Your task to perform on an android device: turn on the 24-hour format for clock Image 0: 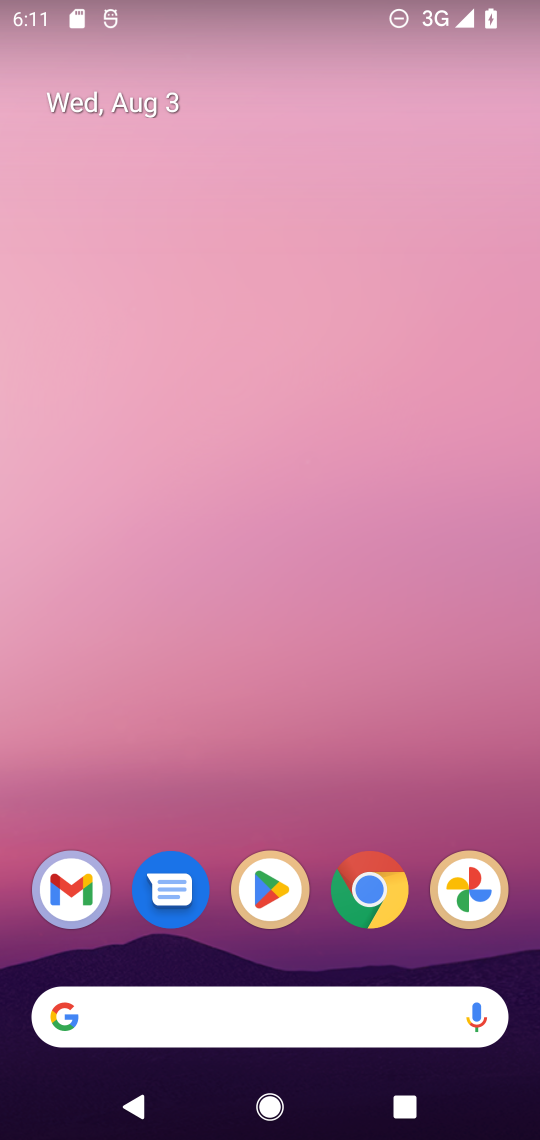
Step 0: drag from (327, 755) to (421, 4)
Your task to perform on an android device: turn on the 24-hour format for clock Image 1: 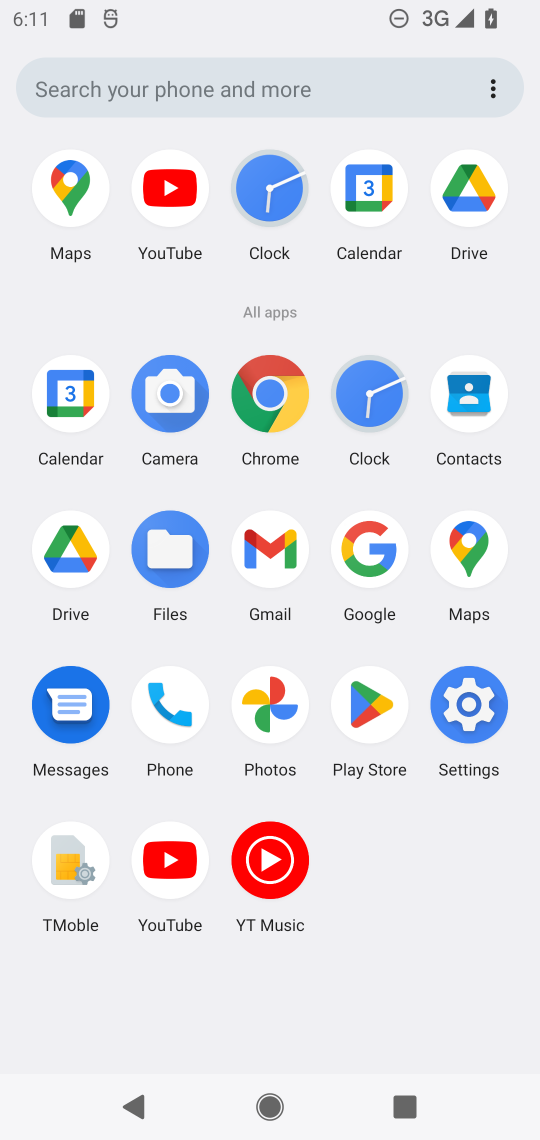
Step 1: click (281, 196)
Your task to perform on an android device: turn on the 24-hour format for clock Image 2: 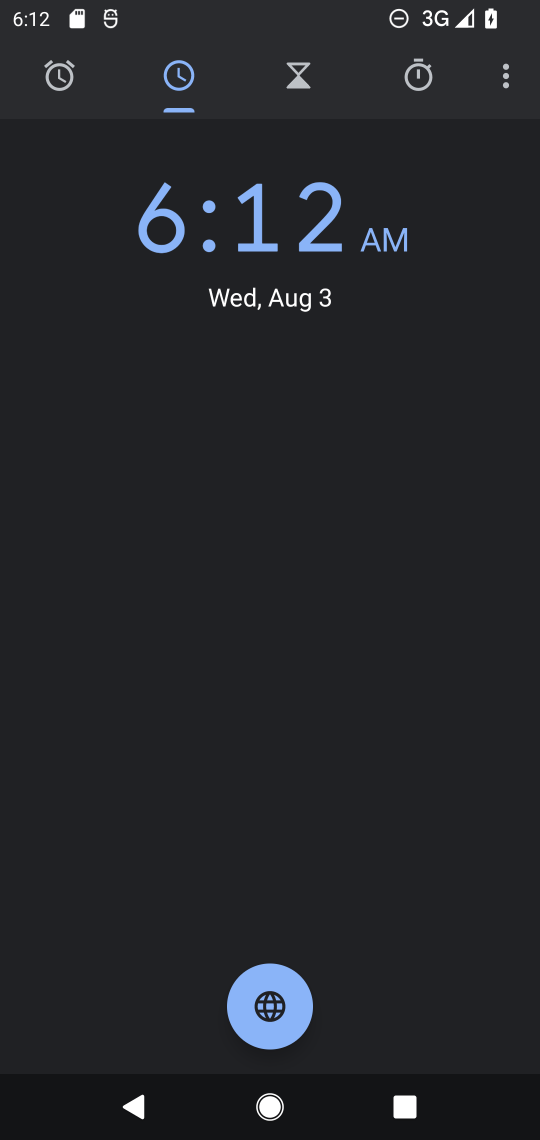
Step 2: click (505, 89)
Your task to perform on an android device: turn on the 24-hour format for clock Image 3: 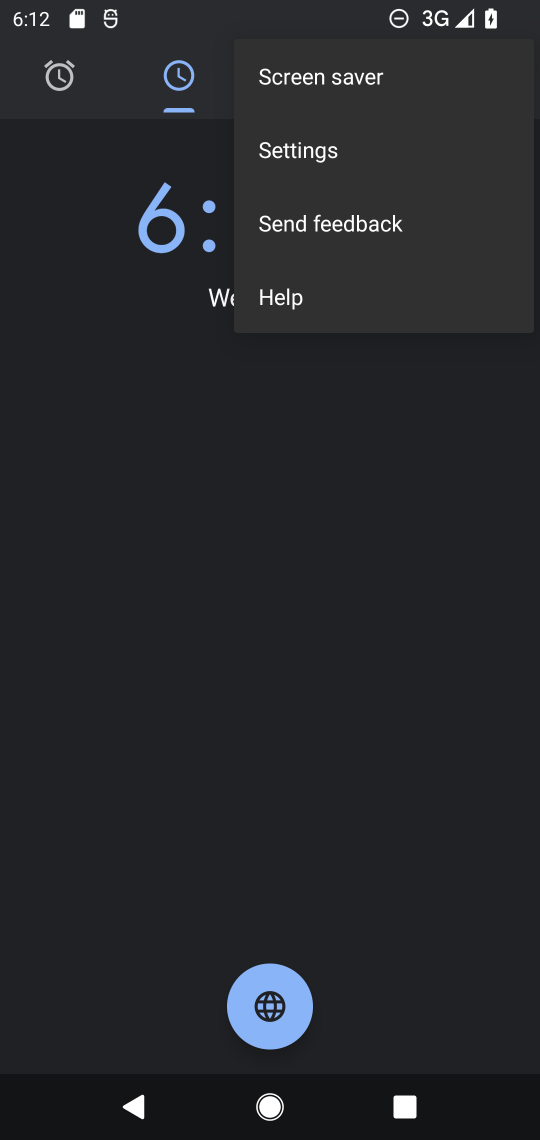
Step 3: click (364, 154)
Your task to perform on an android device: turn on the 24-hour format for clock Image 4: 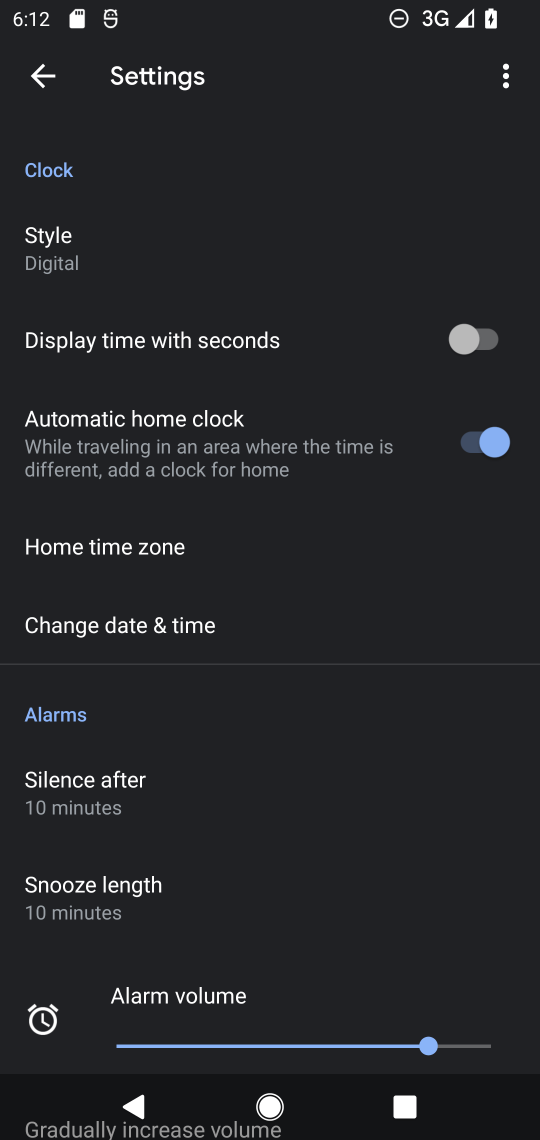
Step 4: click (243, 635)
Your task to perform on an android device: turn on the 24-hour format for clock Image 5: 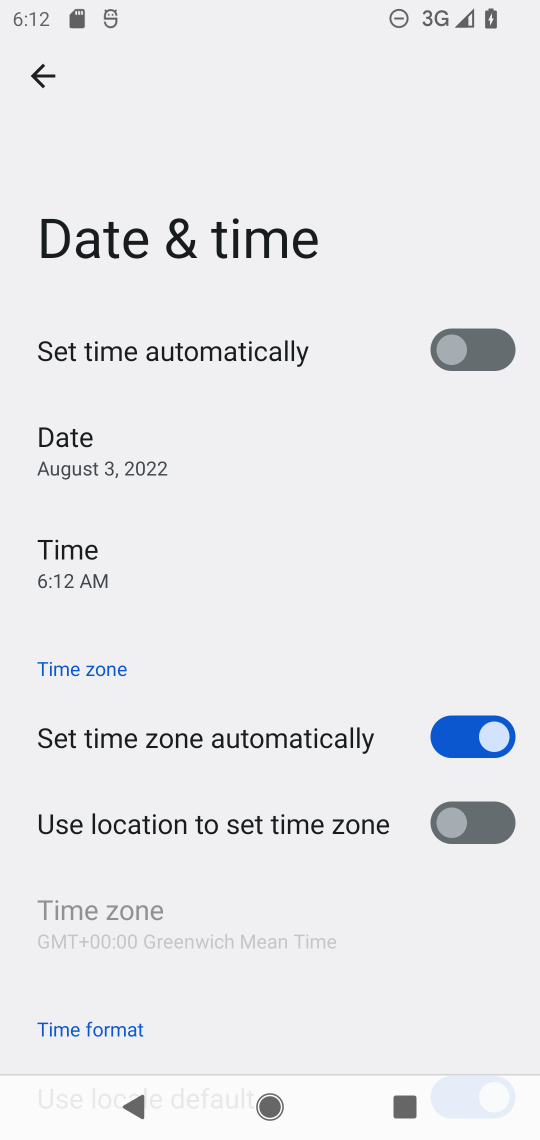
Step 5: drag from (270, 788) to (312, 263)
Your task to perform on an android device: turn on the 24-hour format for clock Image 6: 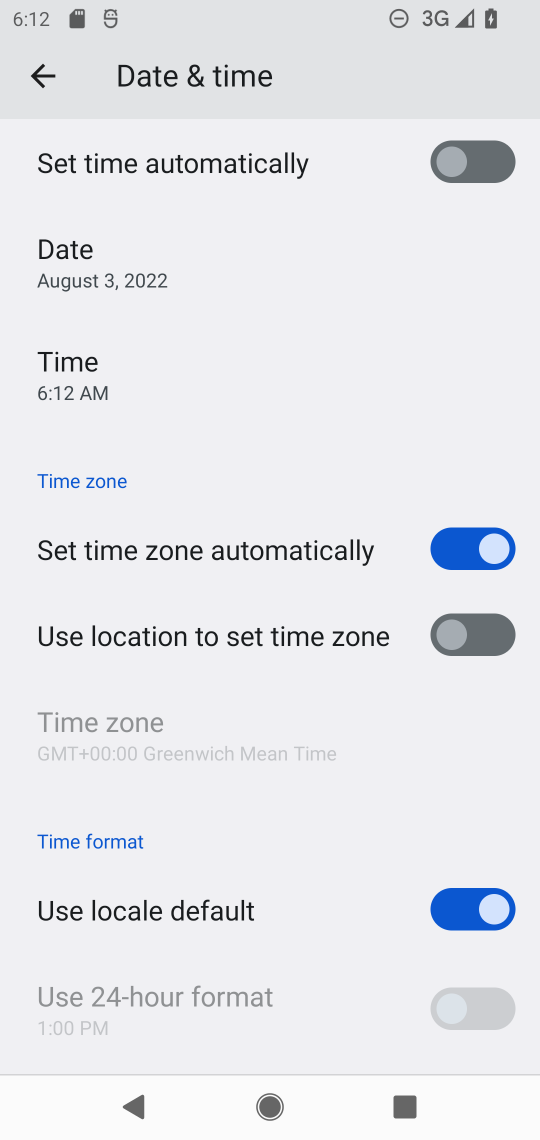
Step 6: click (456, 913)
Your task to perform on an android device: turn on the 24-hour format for clock Image 7: 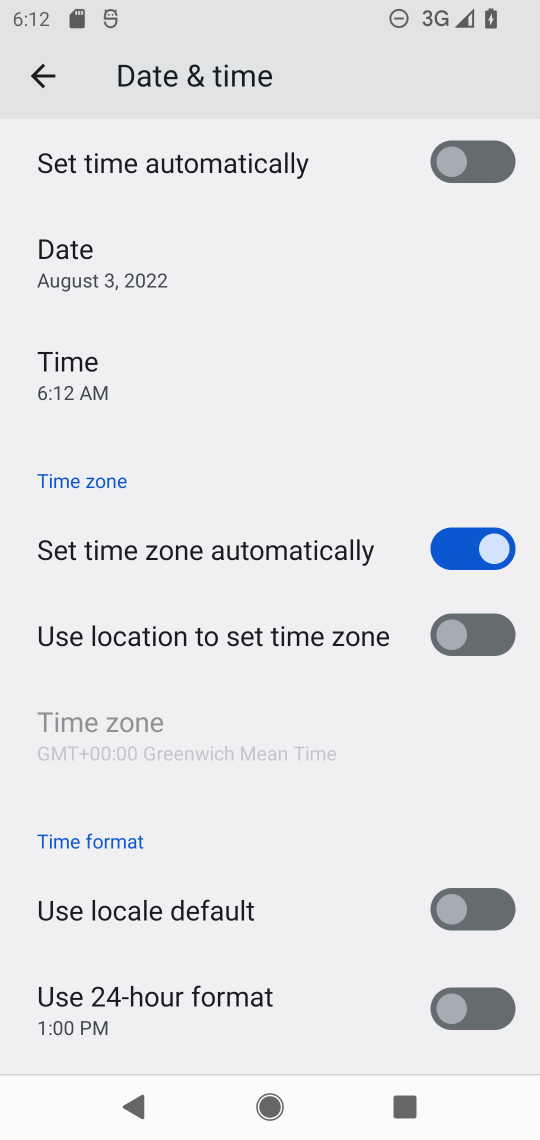
Step 7: click (473, 1003)
Your task to perform on an android device: turn on the 24-hour format for clock Image 8: 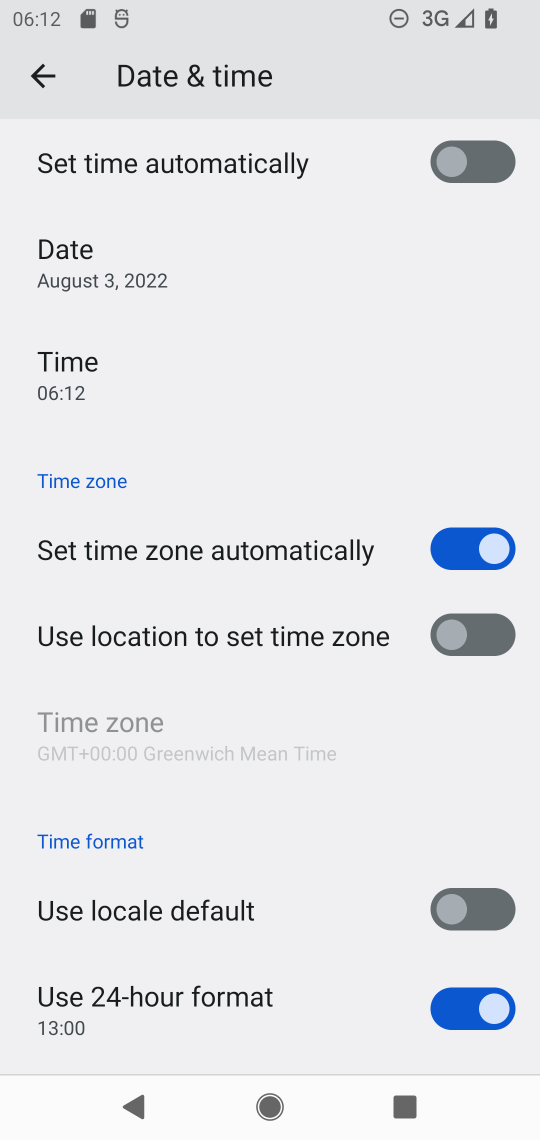
Step 8: task complete